Your task to perform on an android device: Show me popular videos on Youtube Image 0: 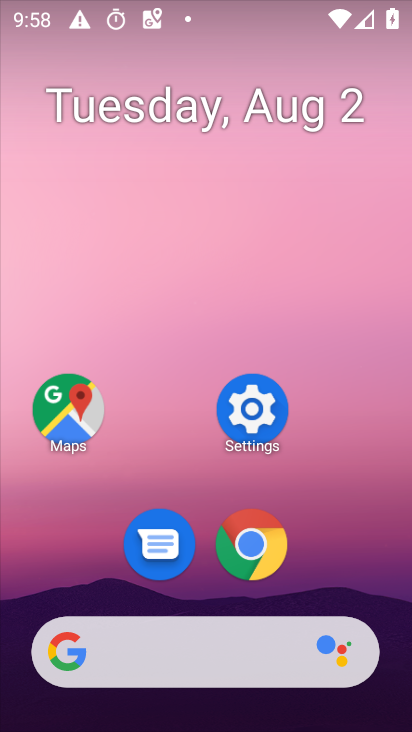
Step 0: drag from (198, 560) to (319, 107)
Your task to perform on an android device: Show me popular videos on Youtube Image 1: 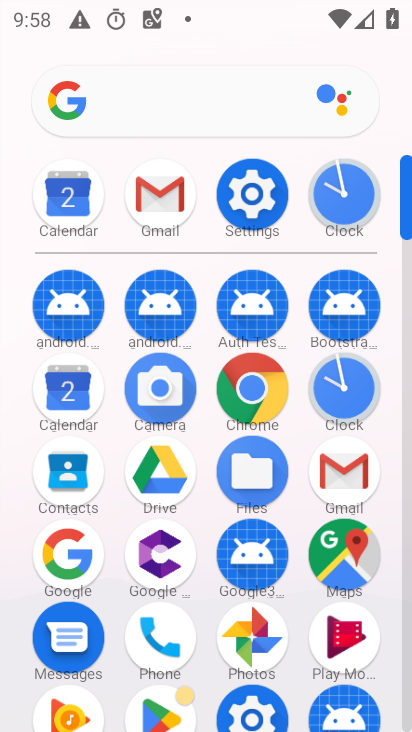
Step 1: drag from (214, 654) to (355, 140)
Your task to perform on an android device: Show me popular videos on Youtube Image 2: 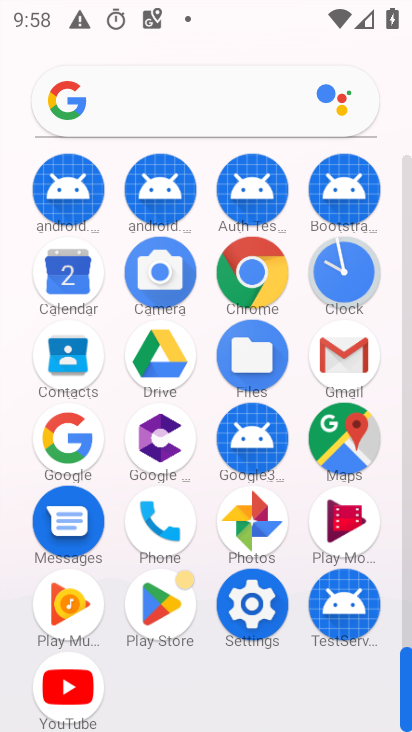
Step 2: click (68, 684)
Your task to perform on an android device: Show me popular videos on Youtube Image 3: 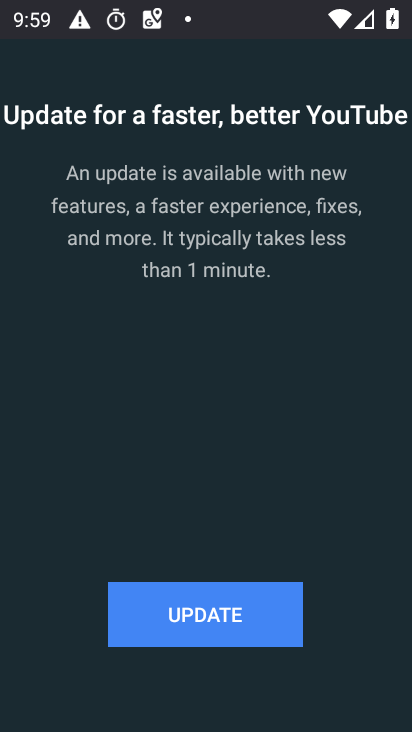
Step 3: click (223, 618)
Your task to perform on an android device: Show me popular videos on Youtube Image 4: 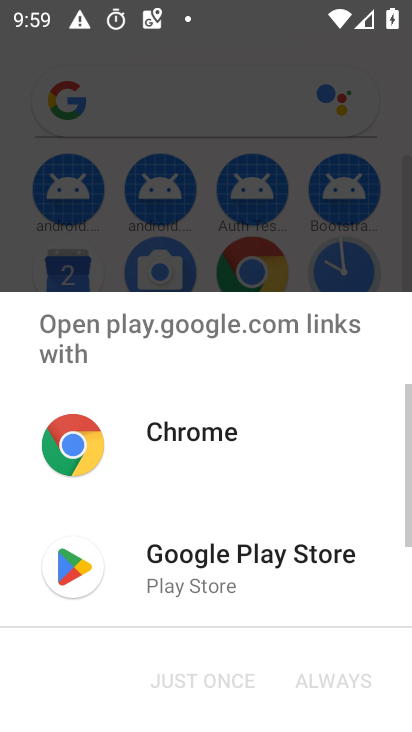
Step 4: click (218, 572)
Your task to perform on an android device: Show me popular videos on Youtube Image 5: 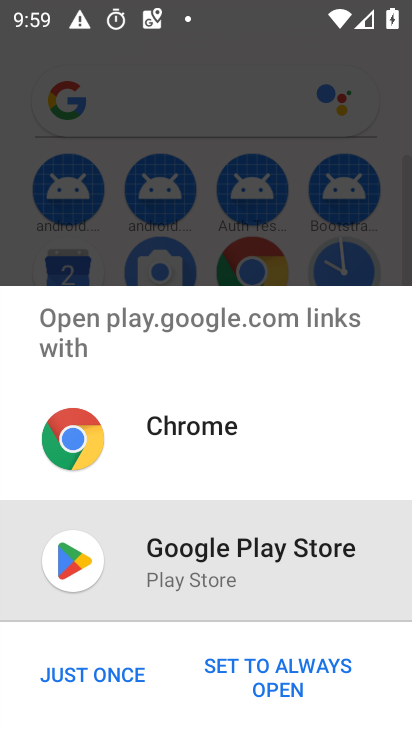
Step 5: click (67, 679)
Your task to perform on an android device: Show me popular videos on Youtube Image 6: 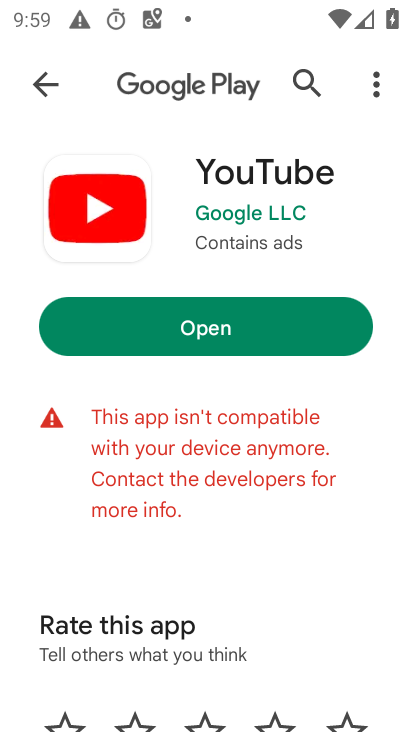
Step 6: click (221, 328)
Your task to perform on an android device: Show me popular videos on Youtube Image 7: 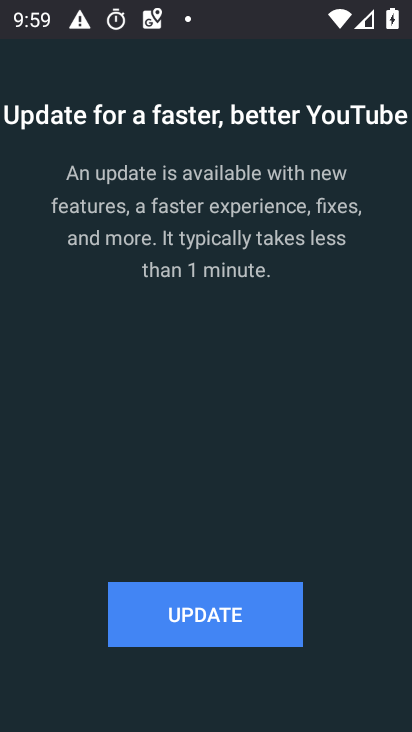
Step 7: click (190, 621)
Your task to perform on an android device: Show me popular videos on Youtube Image 8: 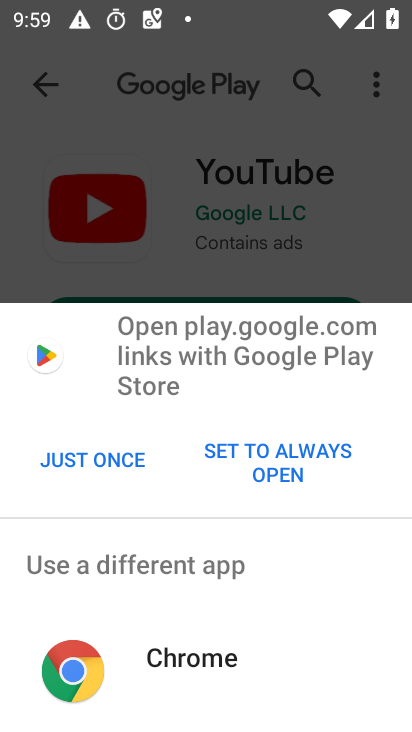
Step 8: click (97, 463)
Your task to perform on an android device: Show me popular videos on Youtube Image 9: 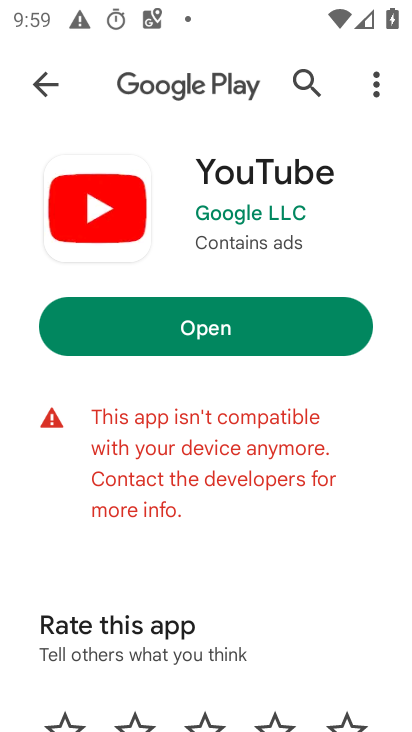
Step 9: task complete